Your task to perform on an android device: View the shopping cart on amazon.com. Add logitech g903 to the cart on amazon.com Image 0: 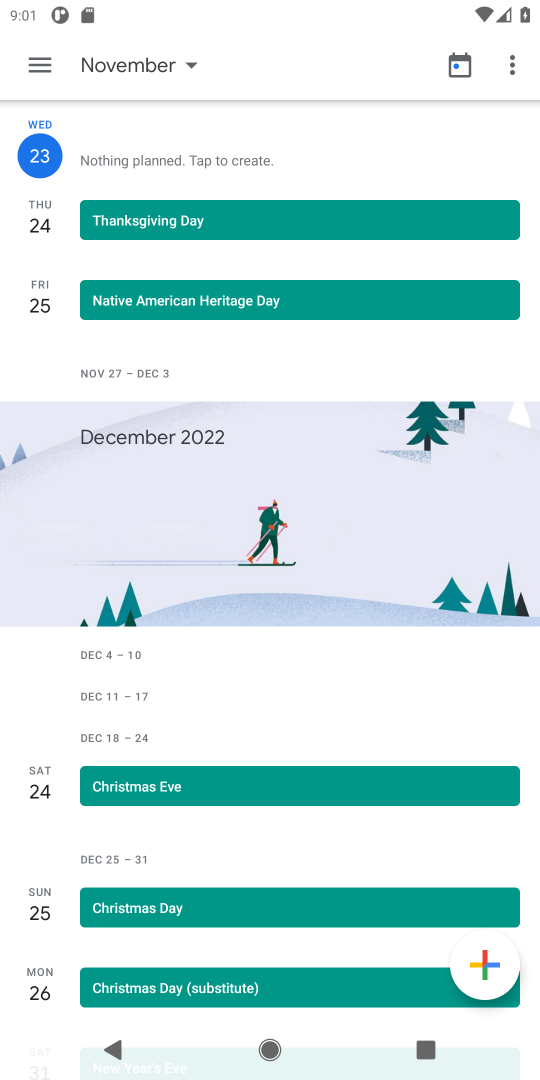
Step 0: press home button
Your task to perform on an android device: View the shopping cart on amazon.com. Add logitech g903 to the cart on amazon.com Image 1: 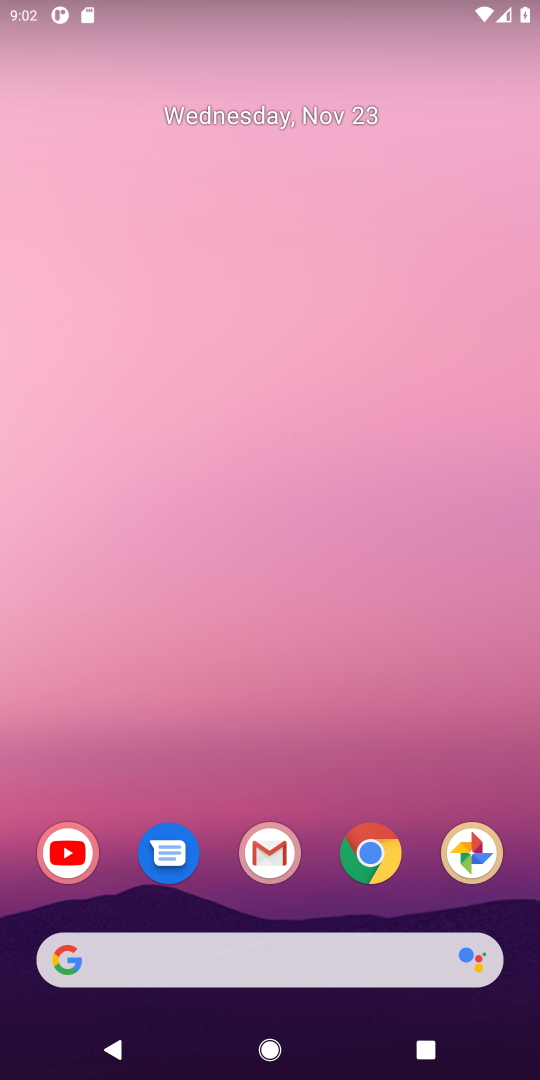
Step 1: click (386, 855)
Your task to perform on an android device: View the shopping cart on amazon.com. Add logitech g903 to the cart on amazon.com Image 2: 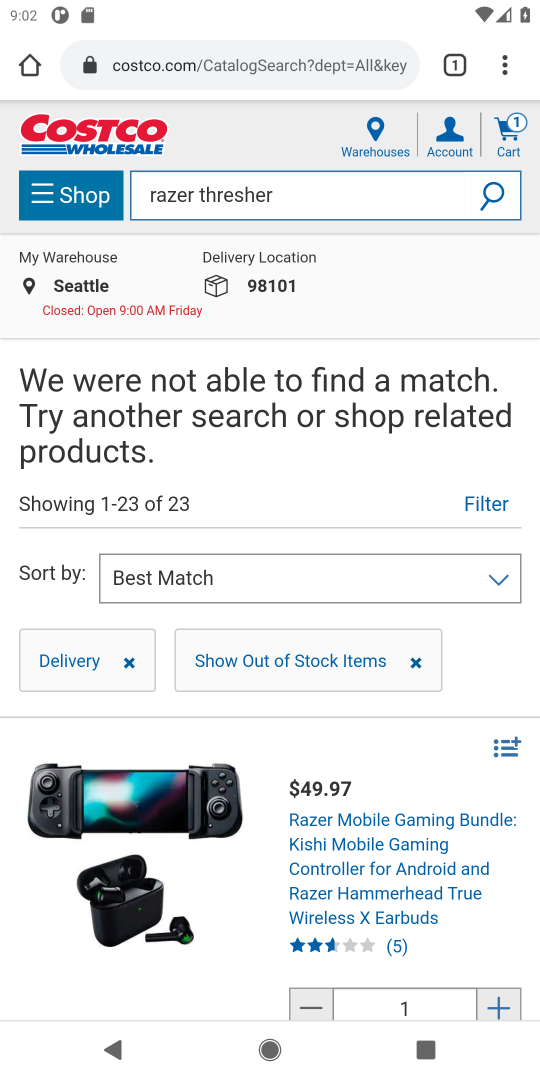
Step 2: click (183, 72)
Your task to perform on an android device: View the shopping cart on amazon.com. Add logitech g903 to the cart on amazon.com Image 3: 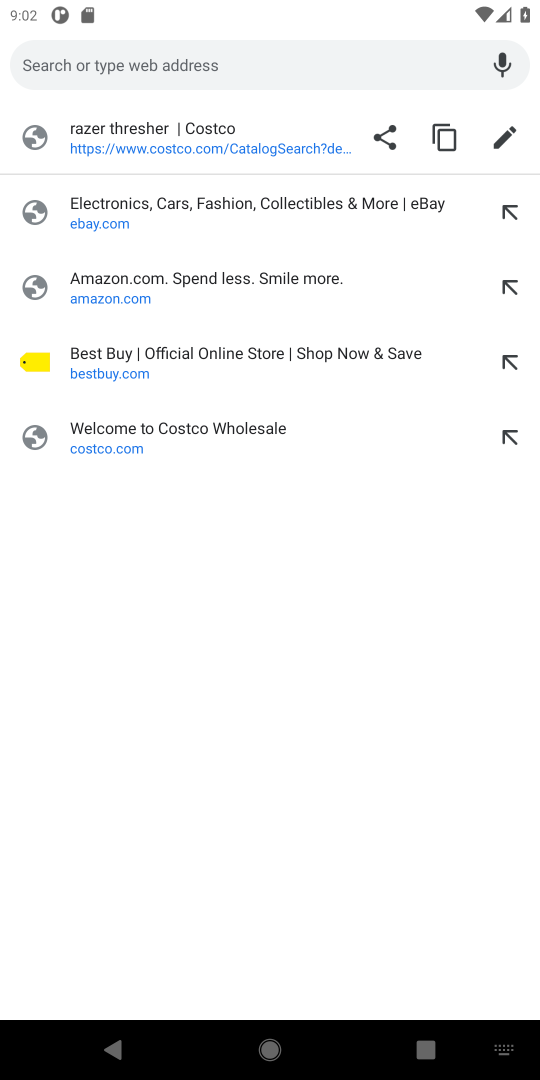
Step 3: click (80, 286)
Your task to perform on an android device: View the shopping cart on amazon.com. Add logitech g903 to the cart on amazon.com Image 4: 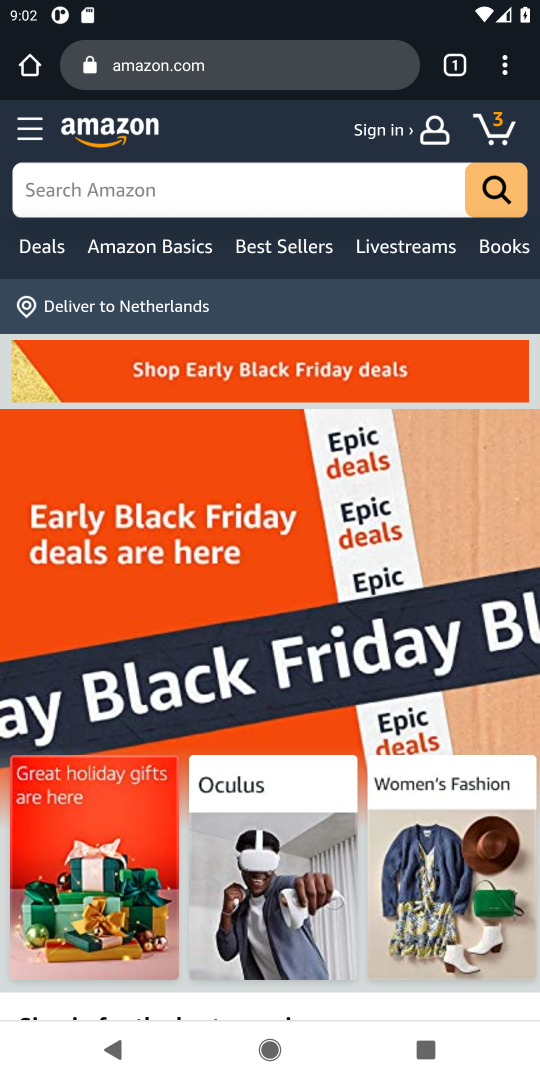
Step 4: click (501, 136)
Your task to perform on an android device: View the shopping cart on amazon.com. Add logitech g903 to the cart on amazon.com Image 5: 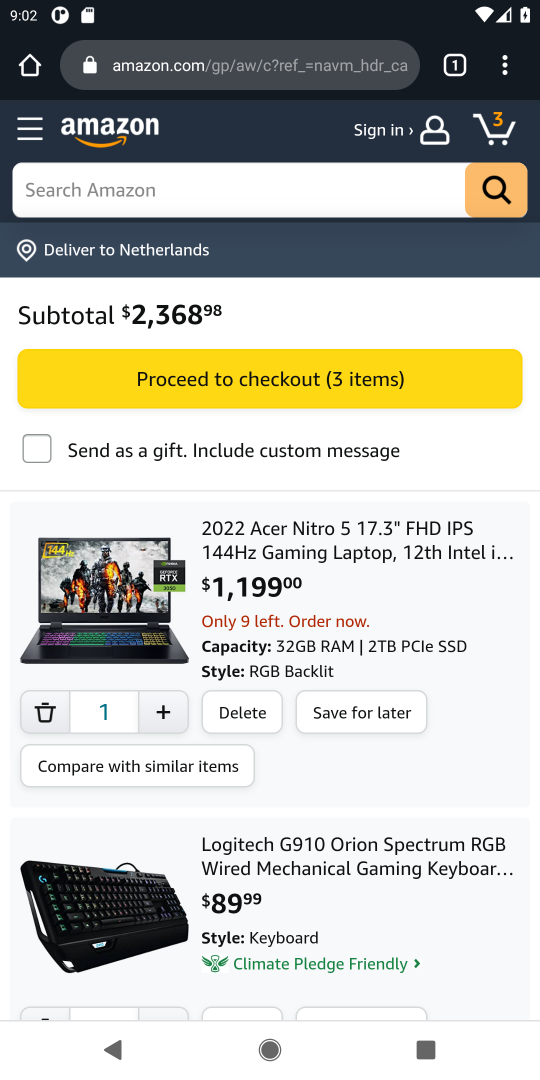
Step 5: click (171, 195)
Your task to perform on an android device: View the shopping cart on amazon.com. Add logitech g903 to the cart on amazon.com Image 6: 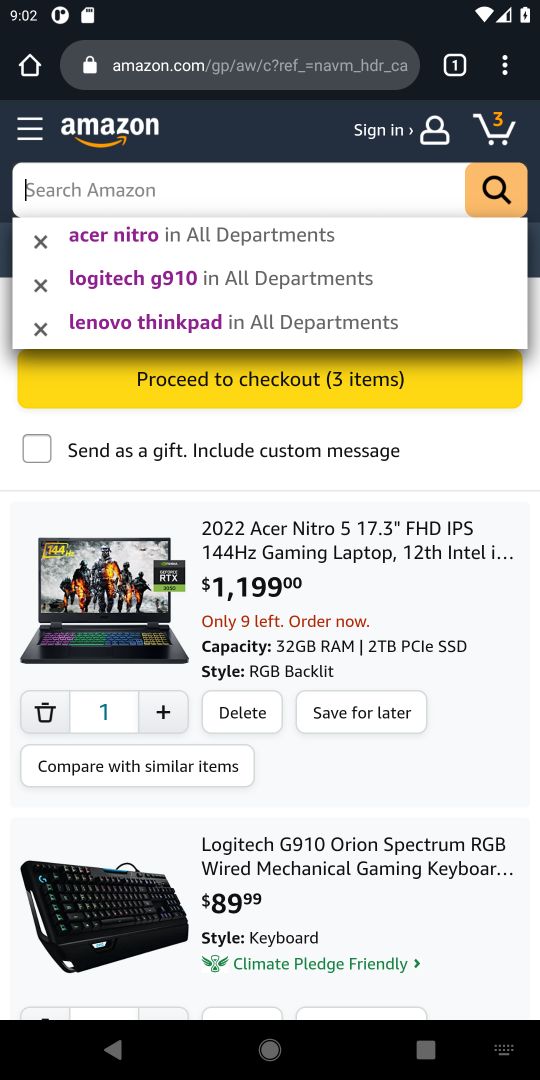
Step 6: type " logitech g903"
Your task to perform on an android device: View the shopping cart on amazon.com. Add logitech g903 to the cart on amazon.com Image 7: 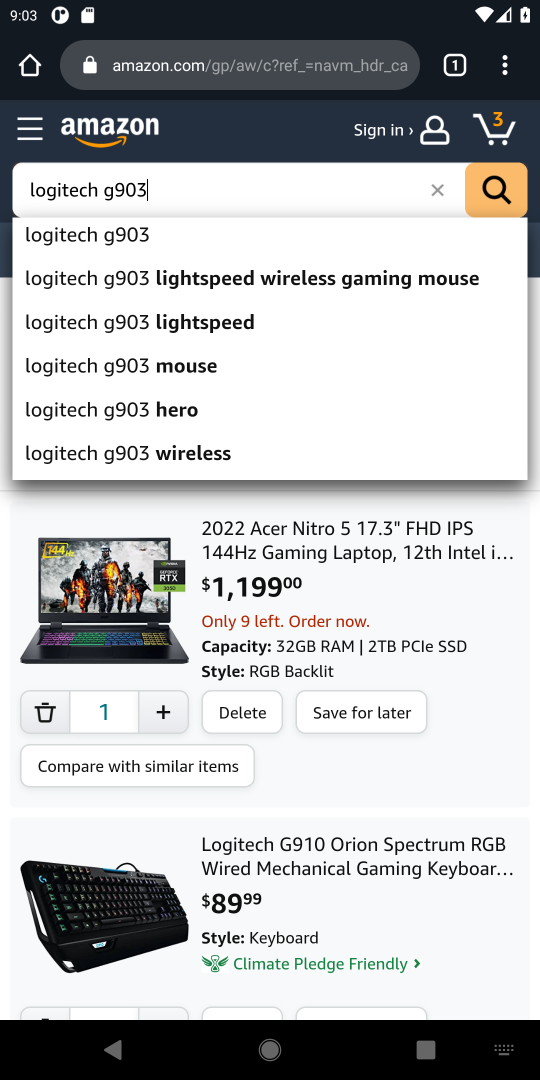
Step 7: click (42, 231)
Your task to perform on an android device: View the shopping cart on amazon.com. Add logitech g903 to the cart on amazon.com Image 8: 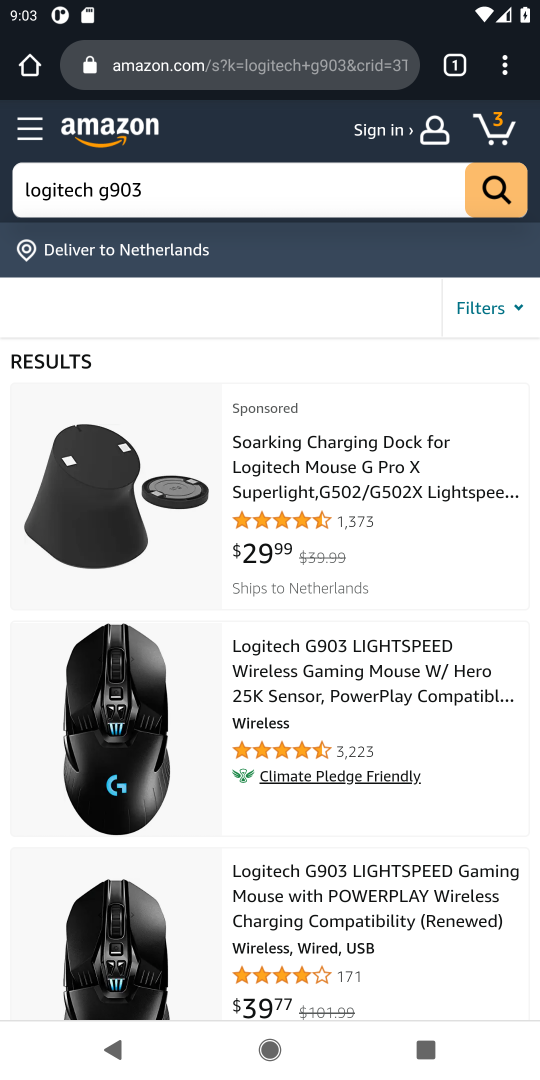
Step 8: drag from (106, 752) to (94, 502)
Your task to perform on an android device: View the shopping cart on amazon.com. Add logitech g903 to the cart on amazon.com Image 9: 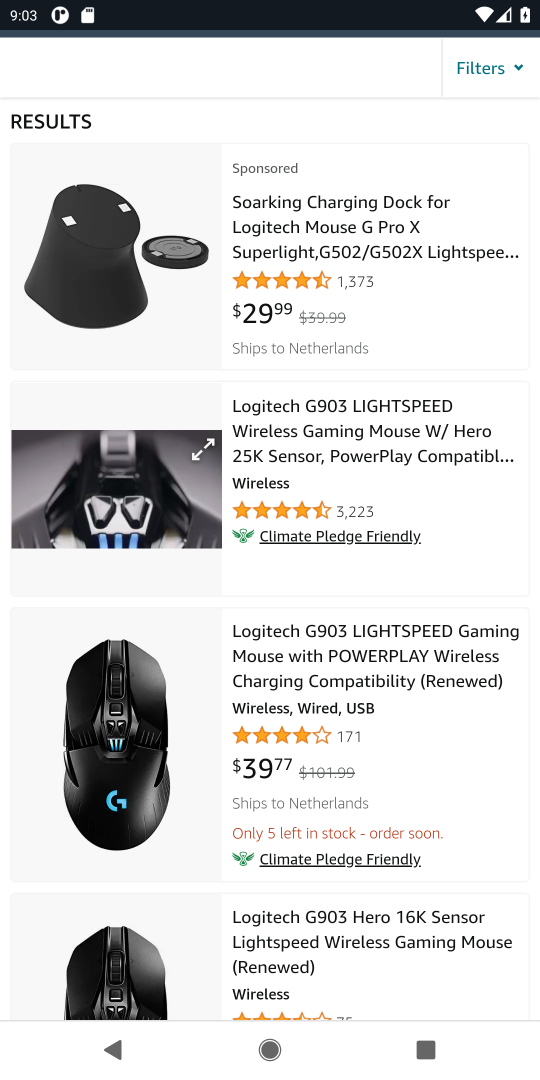
Step 9: click (113, 741)
Your task to perform on an android device: View the shopping cart on amazon.com. Add logitech g903 to the cart on amazon.com Image 10: 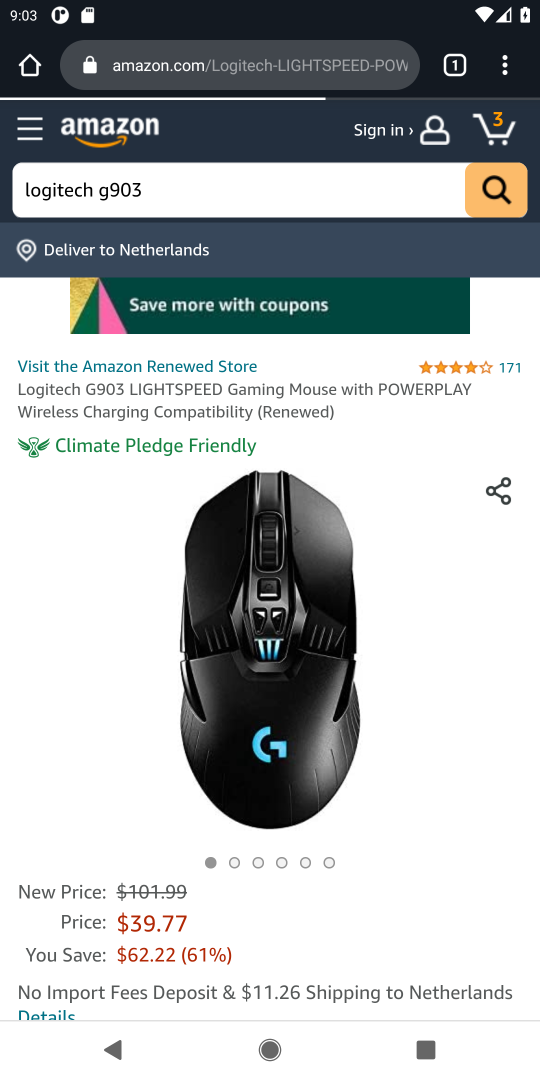
Step 10: drag from (248, 746) to (246, 356)
Your task to perform on an android device: View the shopping cart on amazon.com. Add logitech g903 to the cart on amazon.com Image 11: 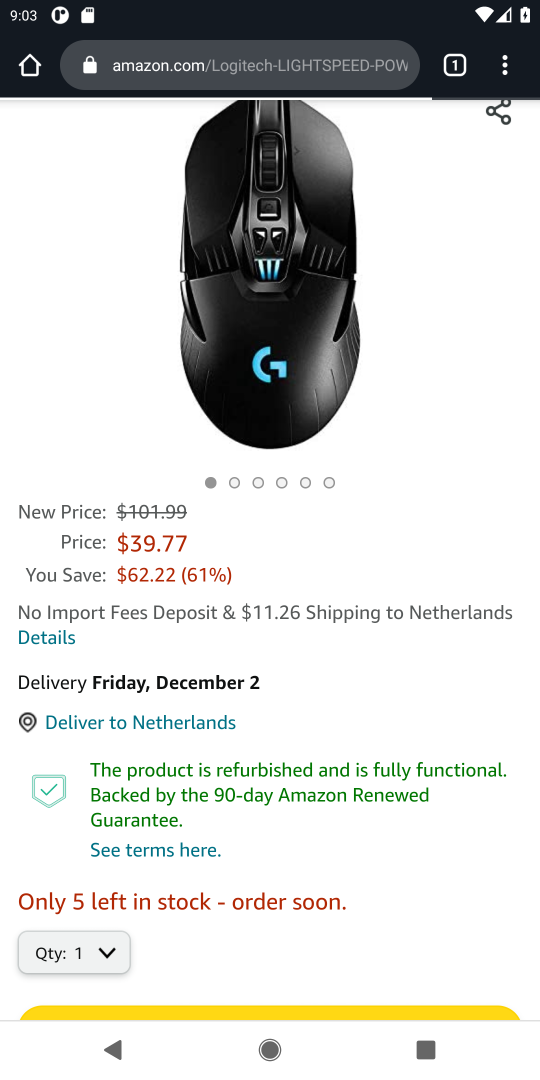
Step 11: drag from (250, 766) to (251, 324)
Your task to perform on an android device: View the shopping cart on amazon.com. Add logitech g903 to the cart on amazon.com Image 12: 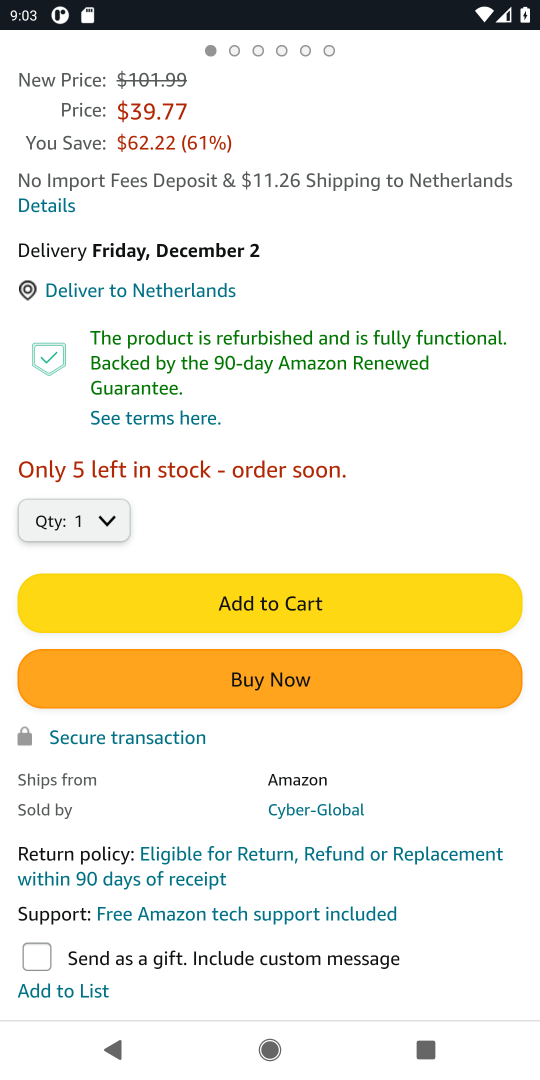
Step 12: click (243, 610)
Your task to perform on an android device: View the shopping cart on amazon.com. Add logitech g903 to the cart on amazon.com Image 13: 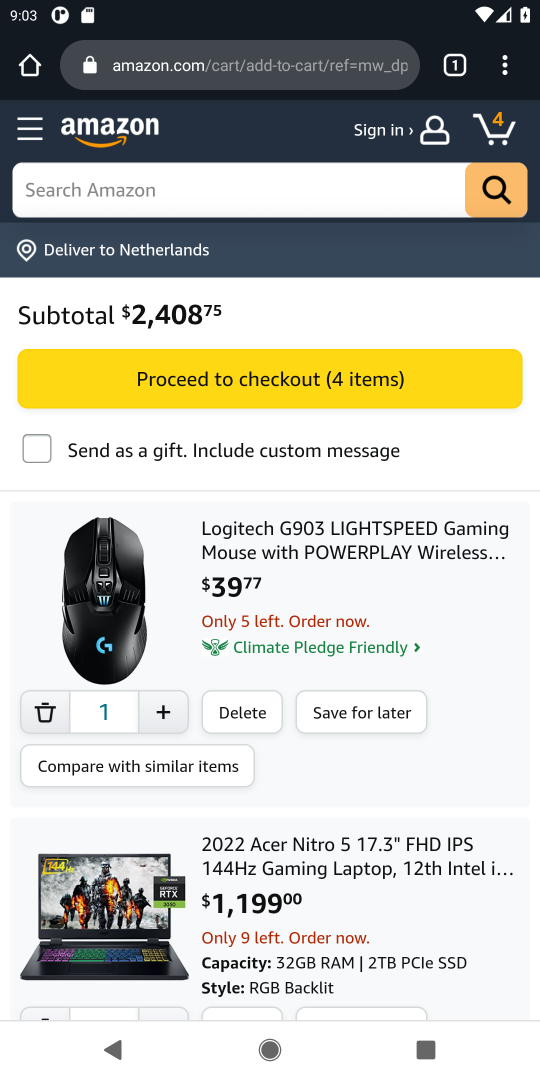
Step 13: task complete